Your task to perform on an android device: Add razer blackwidow to the cart on costco.com Image 0: 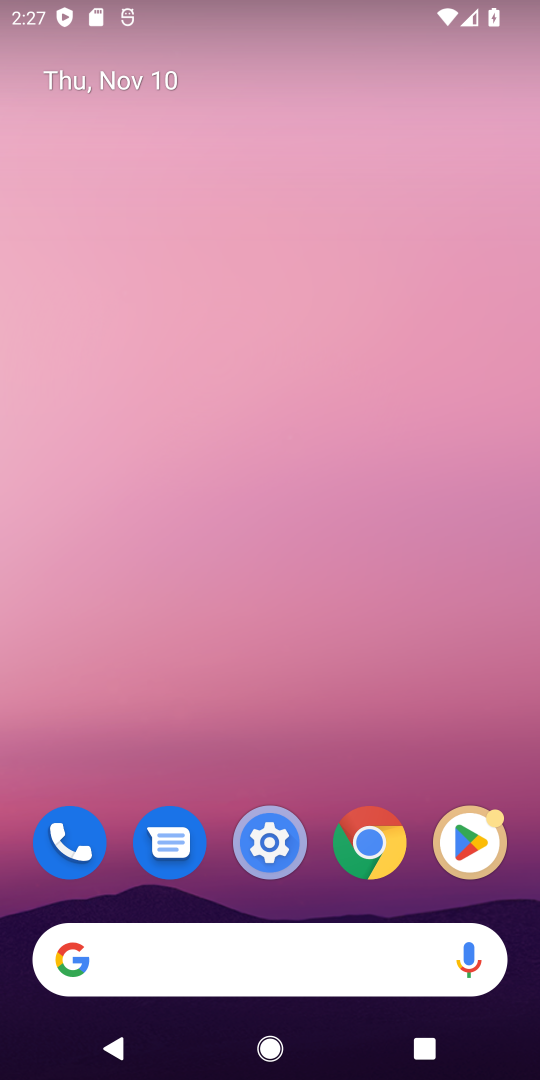
Step 0: press home button
Your task to perform on an android device: Add razer blackwidow to the cart on costco.com Image 1: 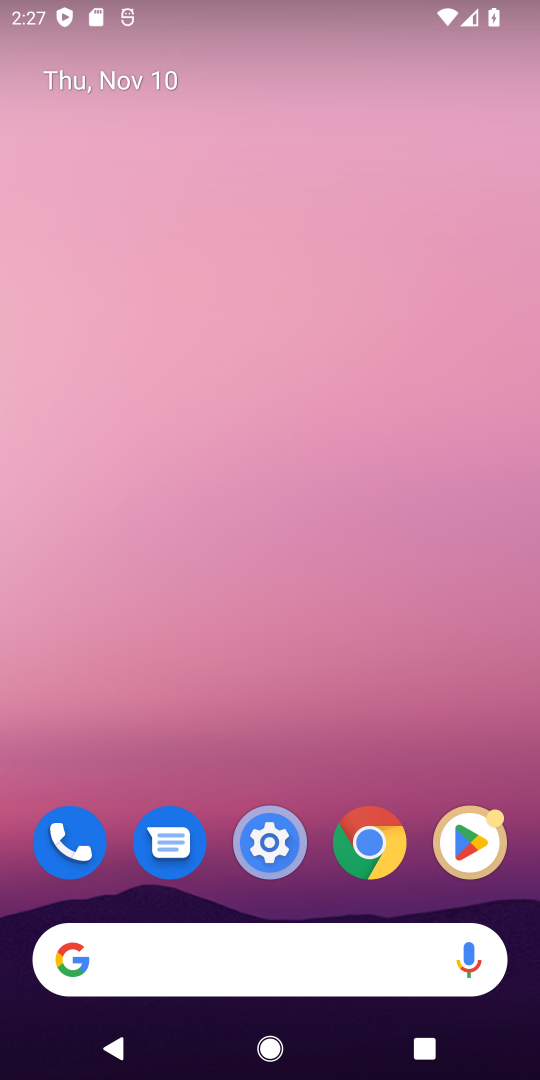
Step 1: click (100, 961)
Your task to perform on an android device: Add razer blackwidow to the cart on costco.com Image 2: 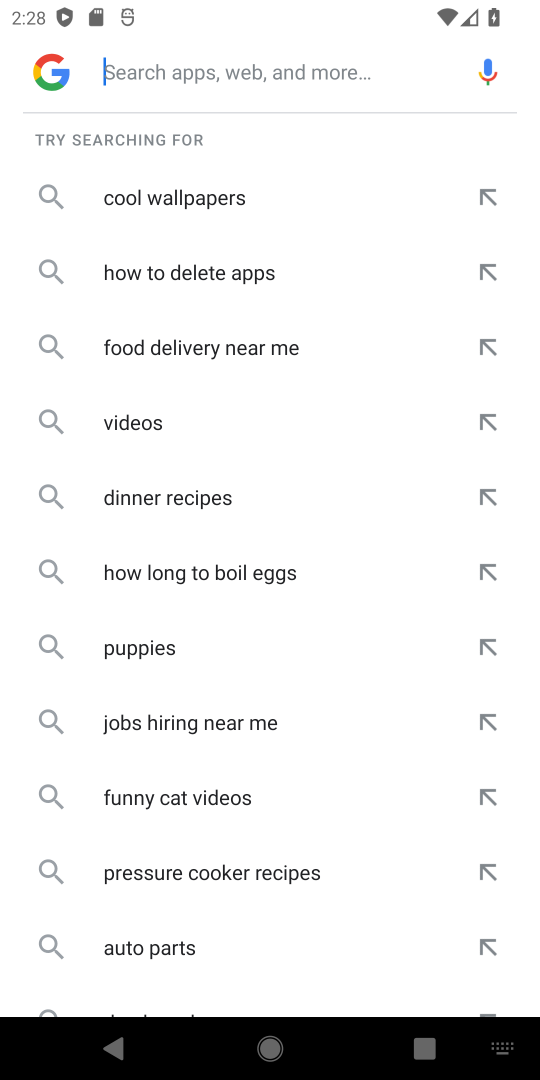
Step 2: type "costco.com"
Your task to perform on an android device: Add razer blackwidow to the cart on costco.com Image 3: 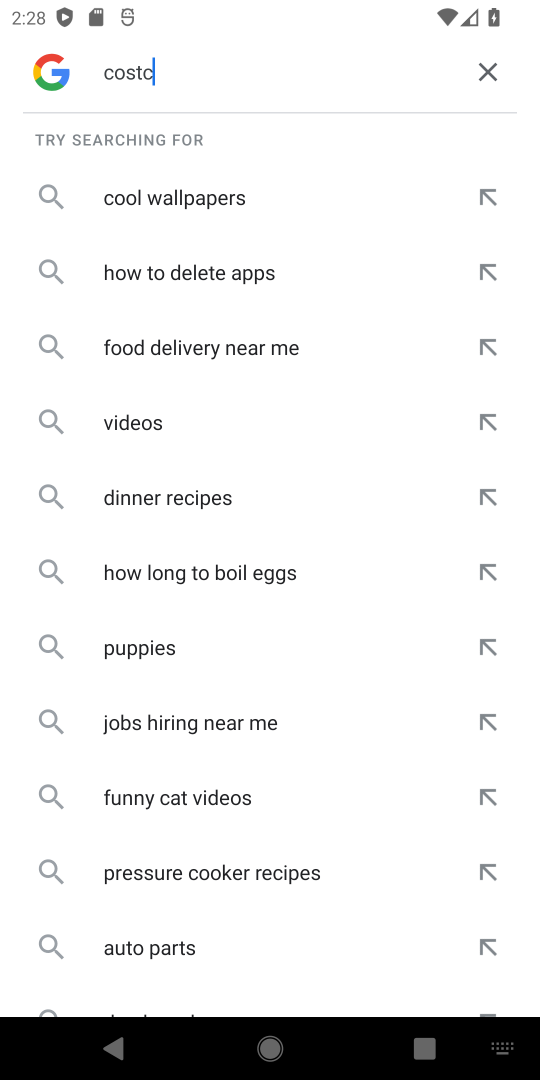
Step 3: press enter
Your task to perform on an android device: Add razer blackwidow to the cart on costco.com Image 4: 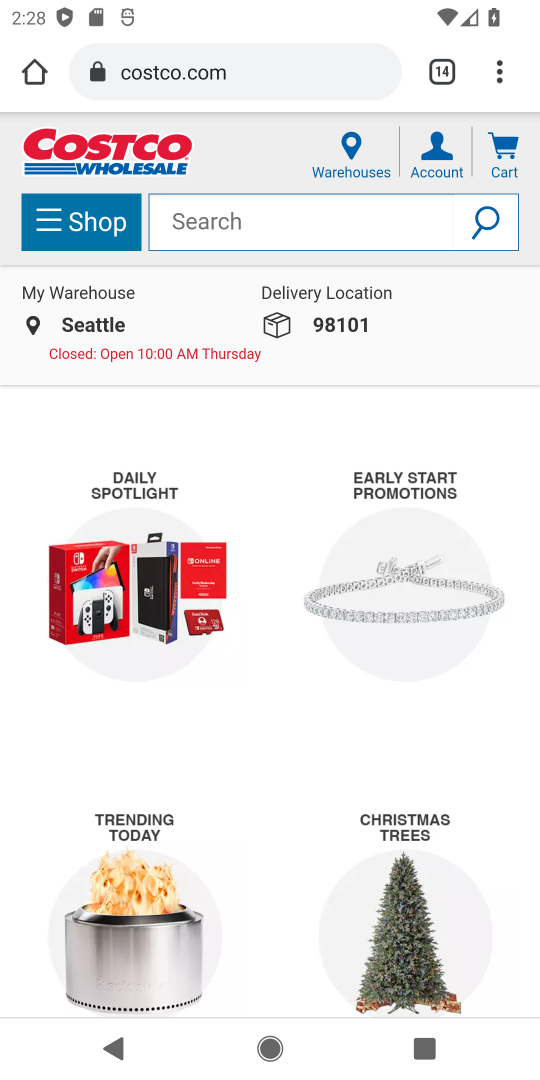
Step 4: click (206, 217)
Your task to perform on an android device: Add razer blackwidow to the cart on costco.com Image 5: 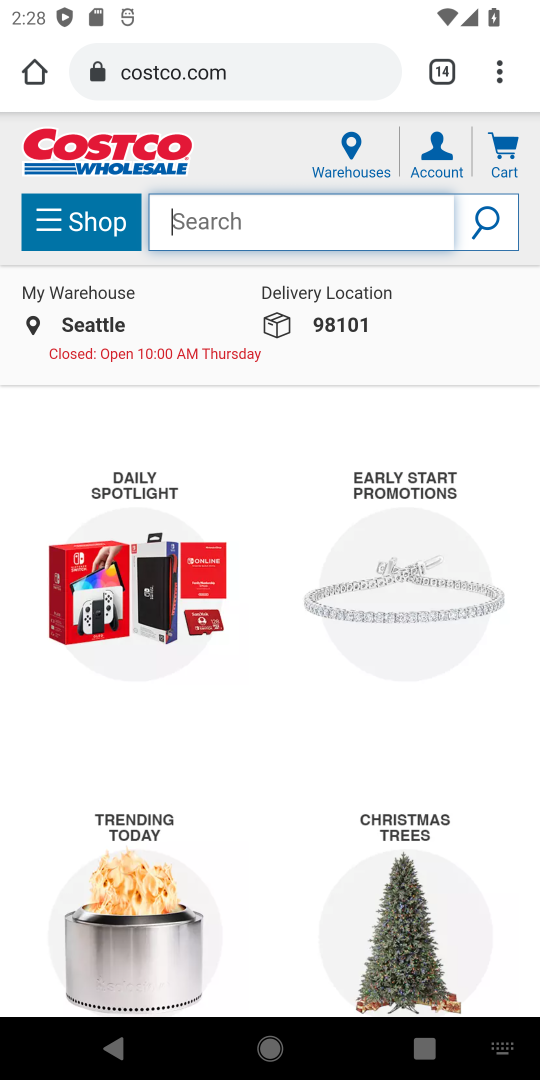
Step 5: press enter
Your task to perform on an android device: Add razer blackwidow to the cart on costco.com Image 6: 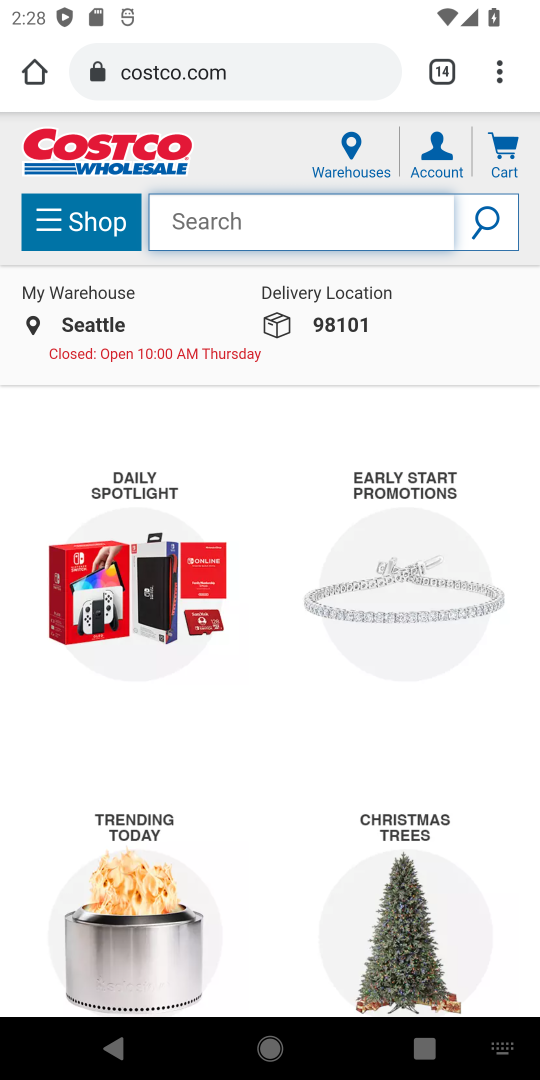
Step 6: type "razer blackwidow"
Your task to perform on an android device: Add razer blackwidow to the cart on costco.com Image 7: 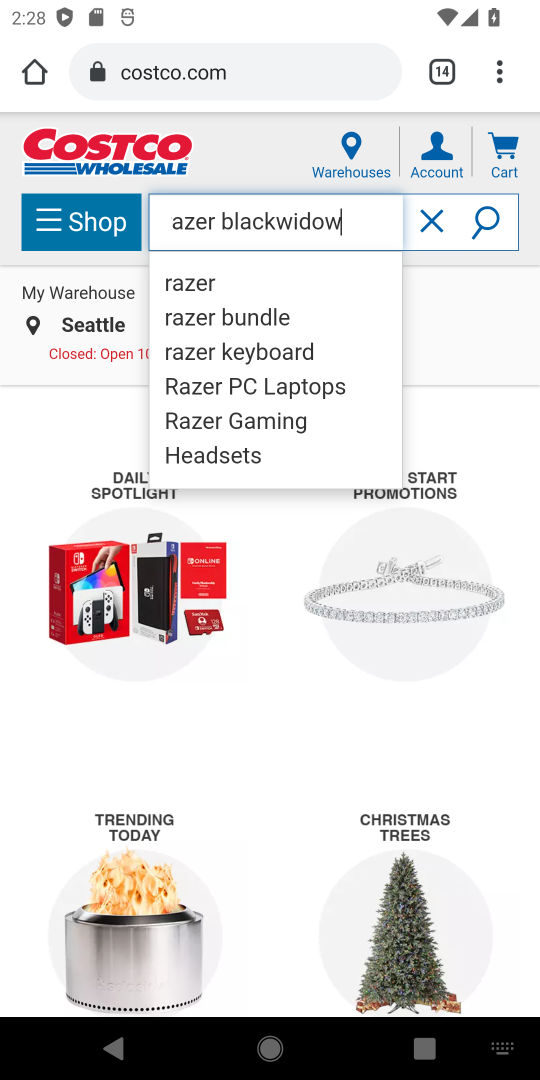
Step 7: press enter
Your task to perform on an android device: Add razer blackwidow to the cart on costco.com Image 8: 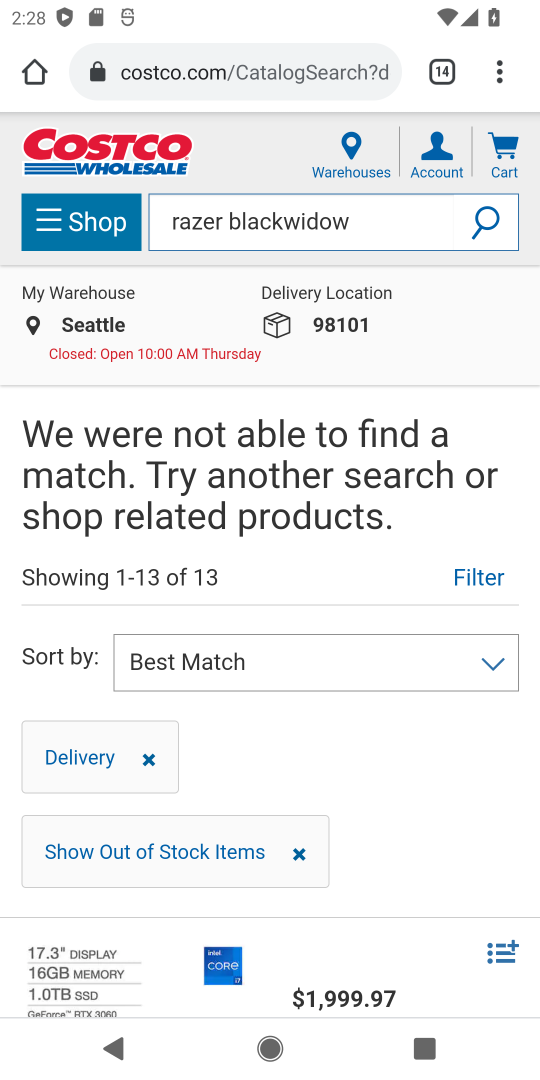
Step 8: drag from (371, 732) to (405, 345)
Your task to perform on an android device: Add razer blackwidow to the cart on costco.com Image 9: 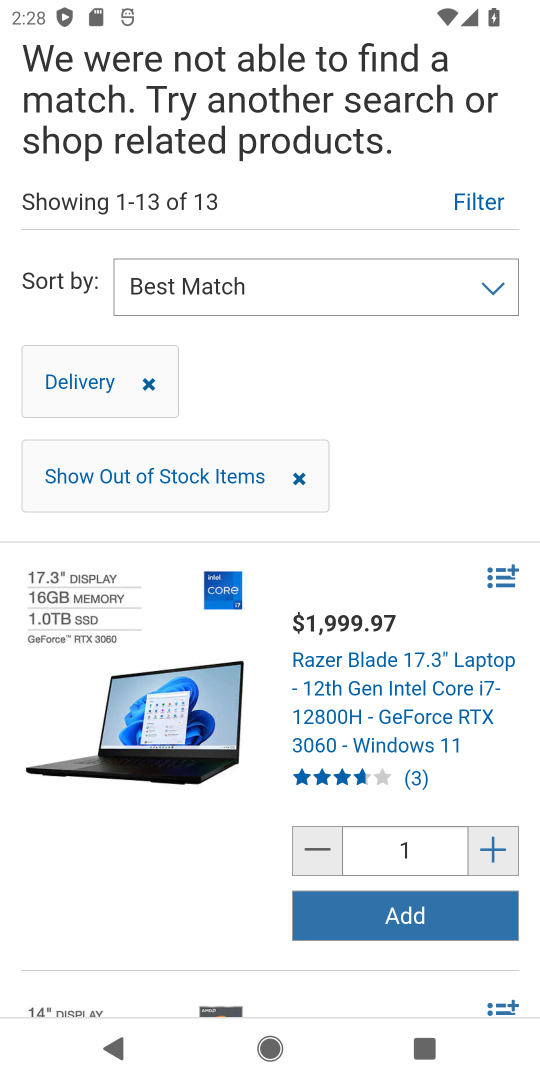
Step 9: drag from (263, 863) to (303, 551)
Your task to perform on an android device: Add razer blackwidow to the cart on costco.com Image 10: 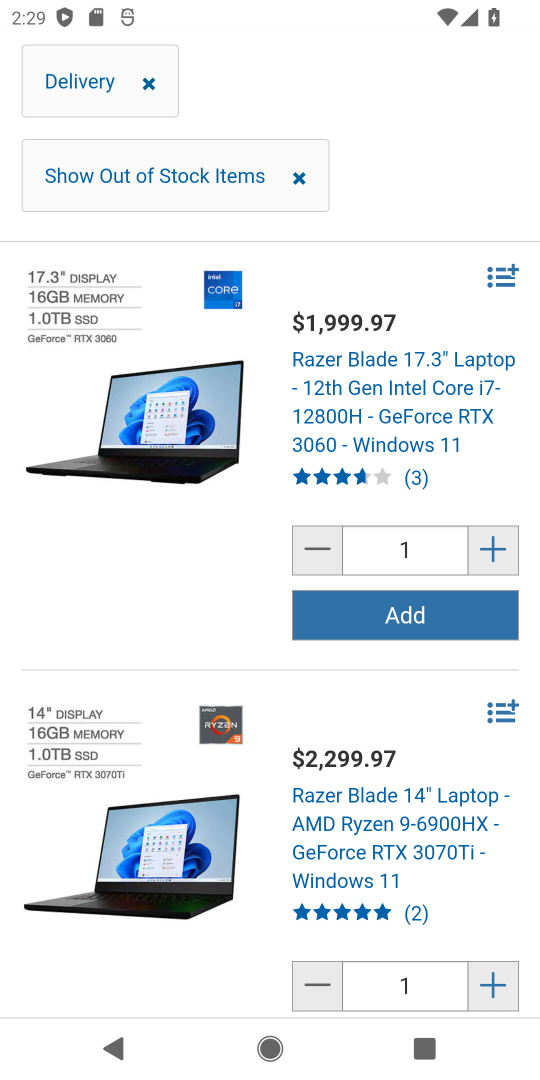
Step 10: click (438, 612)
Your task to perform on an android device: Add razer blackwidow to the cart on costco.com Image 11: 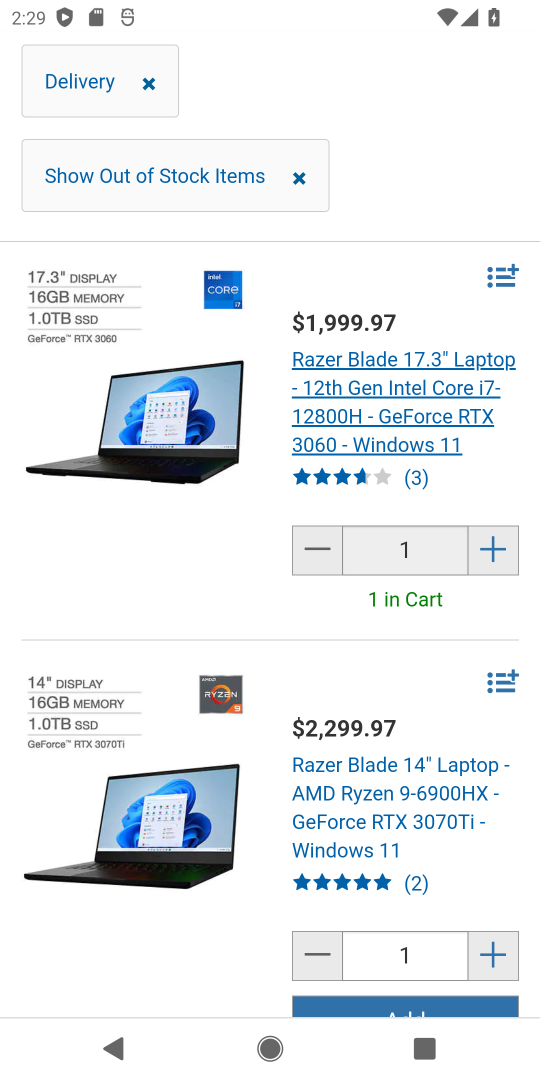
Step 11: task complete